Your task to perform on an android device: turn off javascript in the chrome app Image 0: 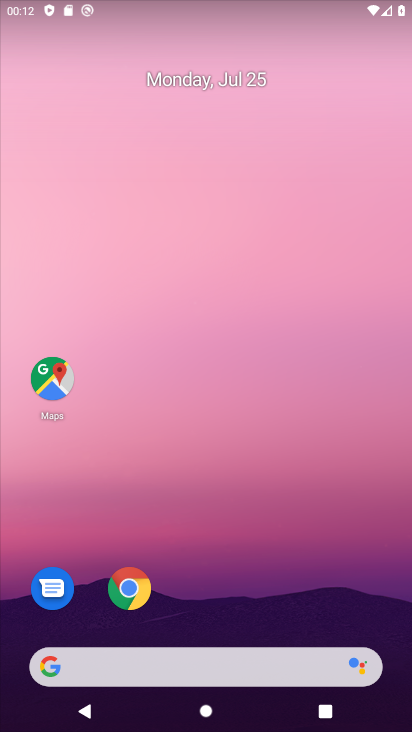
Step 0: click (138, 576)
Your task to perform on an android device: turn off javascript in the chrome app Image 1: 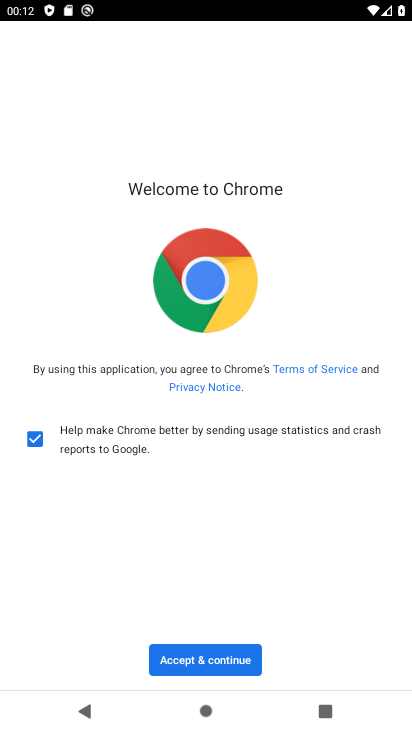
Step 1: click (223, 668)
Your task to perform on an android device: turn off javascript in the chrome app Image 2: 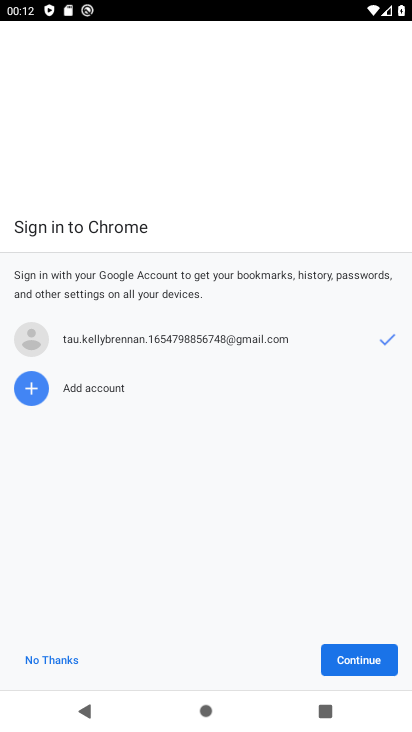
Step 2: click (368, 653)
Your task to perform on an android device: turn off javascript in the chrome app Image 3: 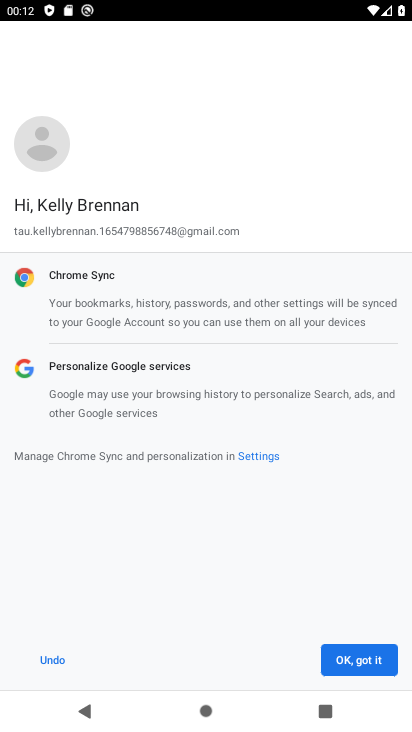
Step 3: click (355, 652)
Your task to perform on an android device: turn off javascript in the chrome app Image 4: 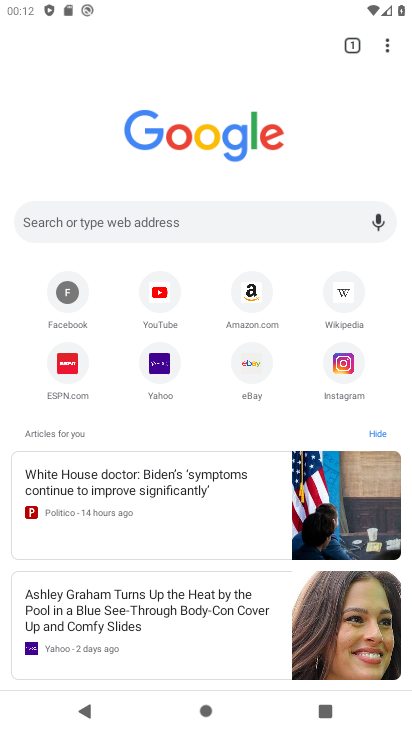
Step 4: click (382, 52)
Your task to perform on an android device: turn off javascript in the chrome app Image 5: 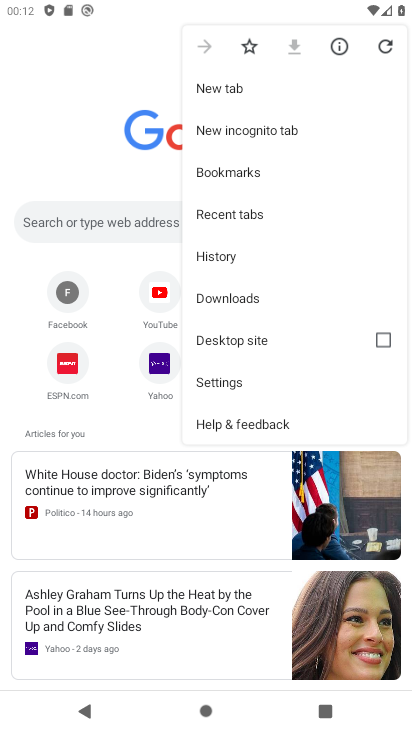
Step 5: click (207, 389)
Your task to perform on an android device: turn off javascript in the chrome app Image 6: 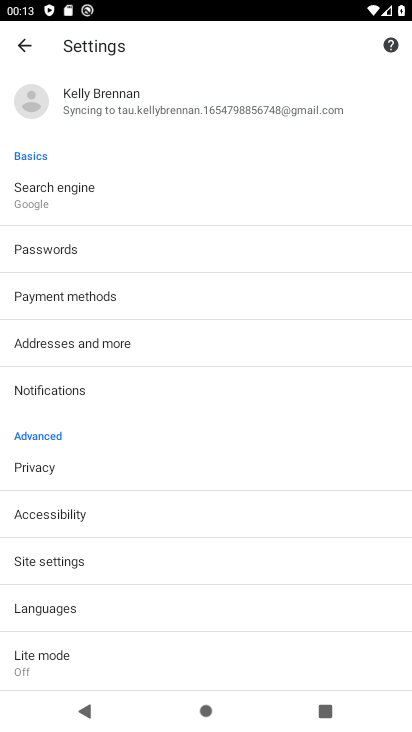
Step 6: click (58, 563)
Your task to perform on an android device: turn off javascript in the chrome app Image 7: 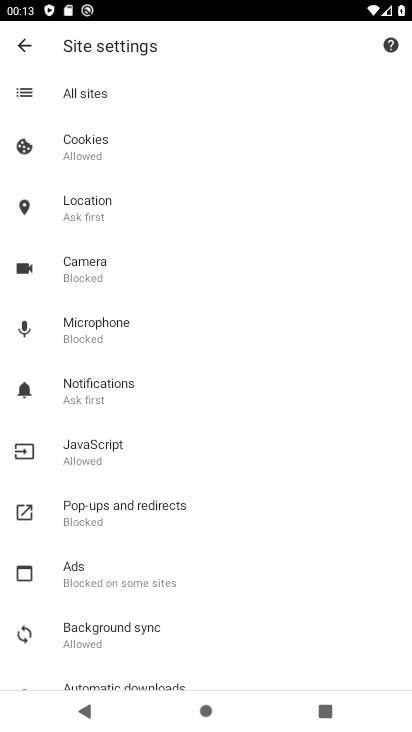
Step 7: click (100, 457)
Your task to perform on an android device: turn off javascript in the chrome app Image 8: 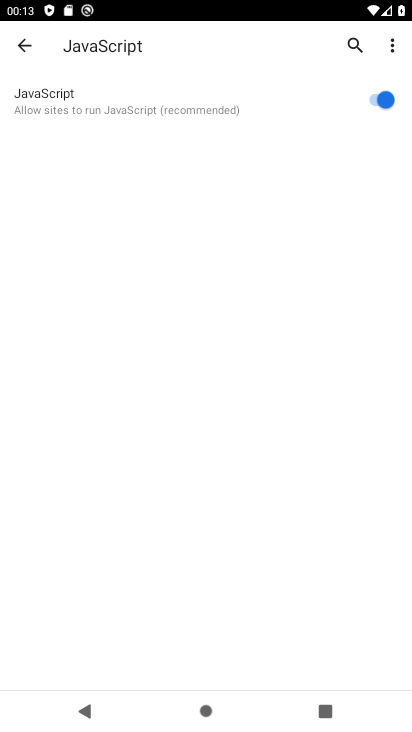
Step 8: click (354, 102)
Your task to perform on an android device: turn off javascript in the chrome app Image 9: 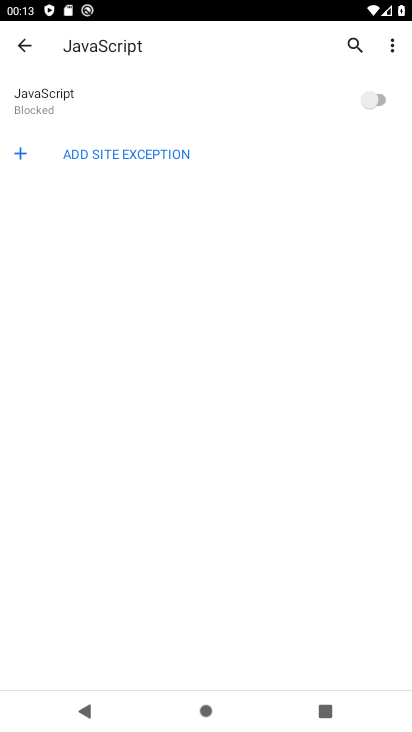
Step 9: task complete